Your task to perform on an android device: turn off translation in the chrome app Image 0: 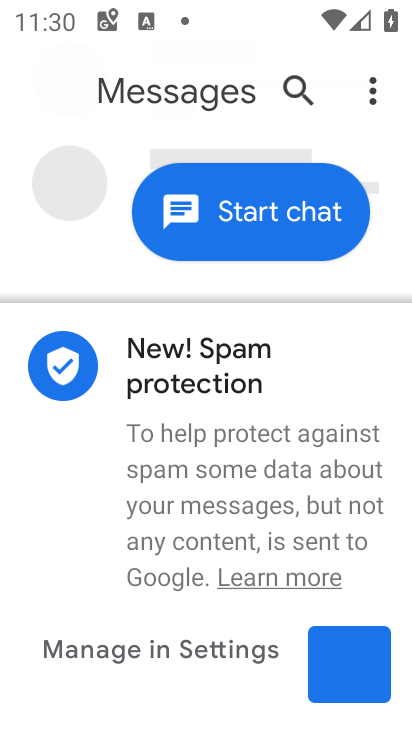
Step 0: press home button
Your task to perform on an android device: turn off translation in the chrome app Image 1: 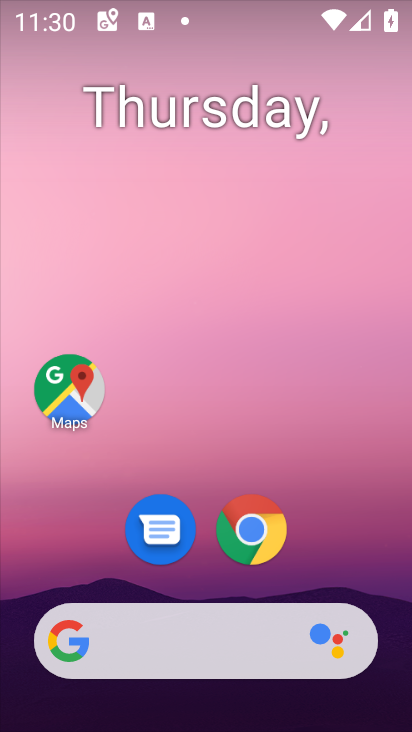
Step 1: drag from (238, 561) to (247, 208)
Your task to perform on an android device: turn off translation in the chrome app Image 2: 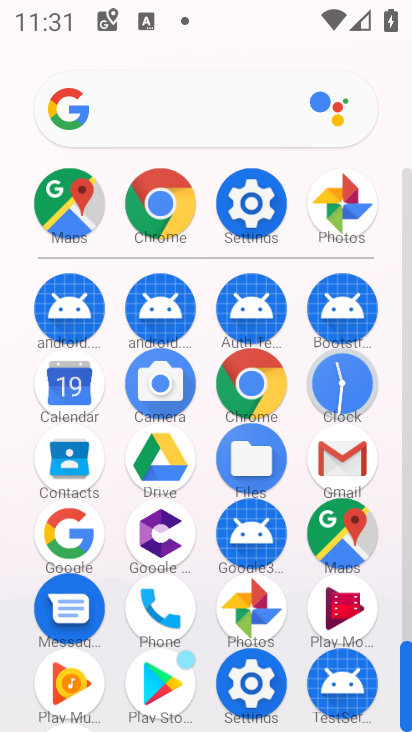
Step 2: click (158, 230)
Your task to perform on an android device: turn off translation in the chrome app Image 3: 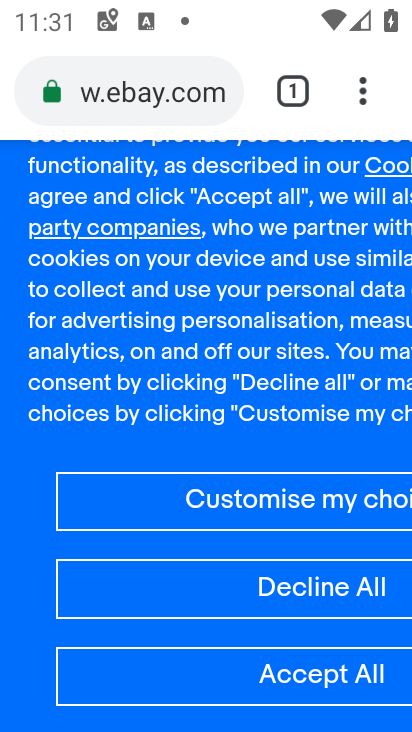
Step 3: click (366, 105)
Your task to perform on an android device: turn off translation in the chrome app Image 4: 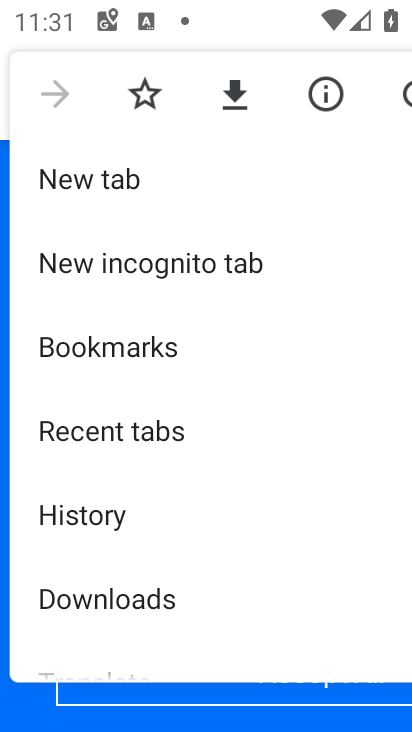
Step 4: drag from (161, 542) to (158, 128)
Your task to perform on an android device: turn off translation in the chrome app Image 5: 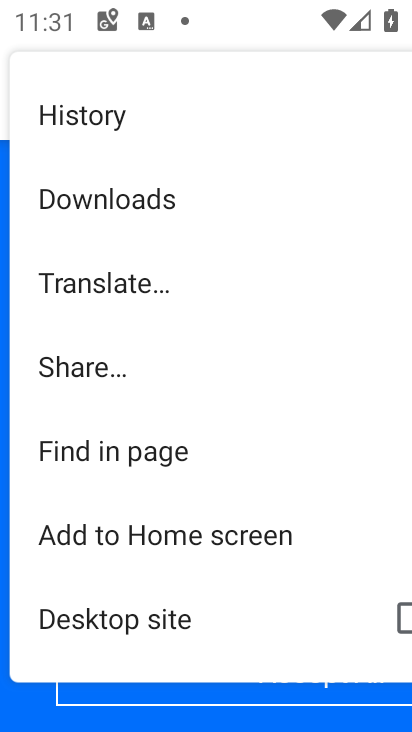
Step 5: click (165, 293)
Your task to perform on an android device: turn off translation in the chrome app Image 6: 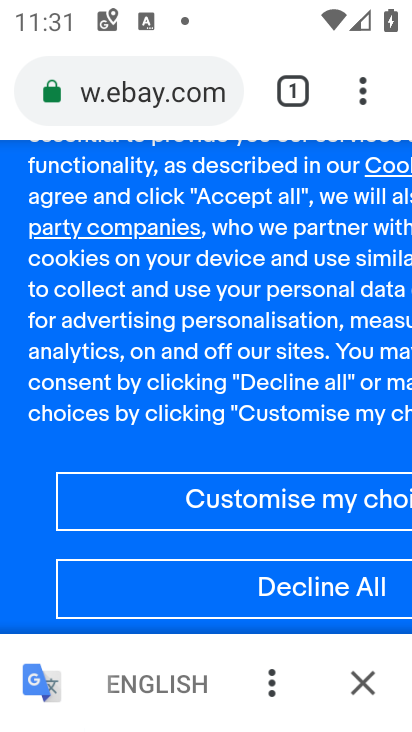
Step 6: click (270, 701)
Your task to perform on an android device: turn off translation in the chrome app Image 7: 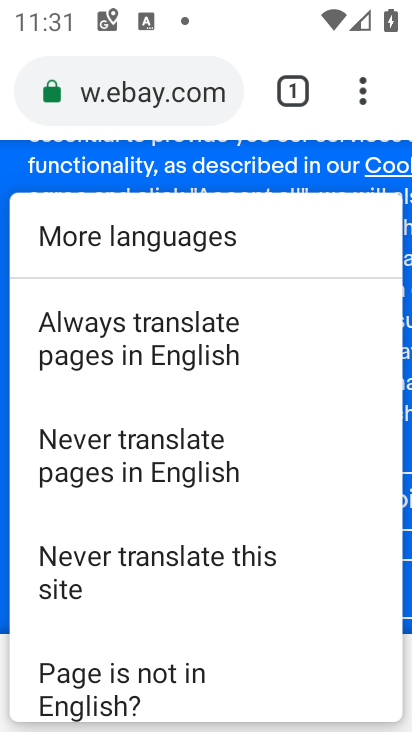
Step 7: click (151, 574)
Your task to perform on an android device: turn off translation in the chrome app Image 8: 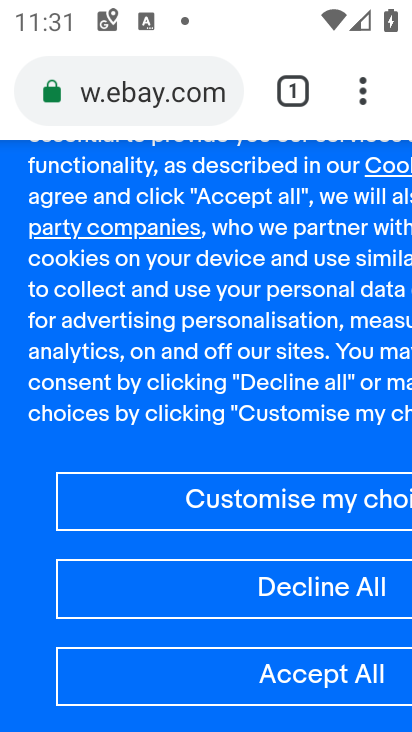
Step 8: task complete